Your task to perform on an android device: Open my contact list Image 0: 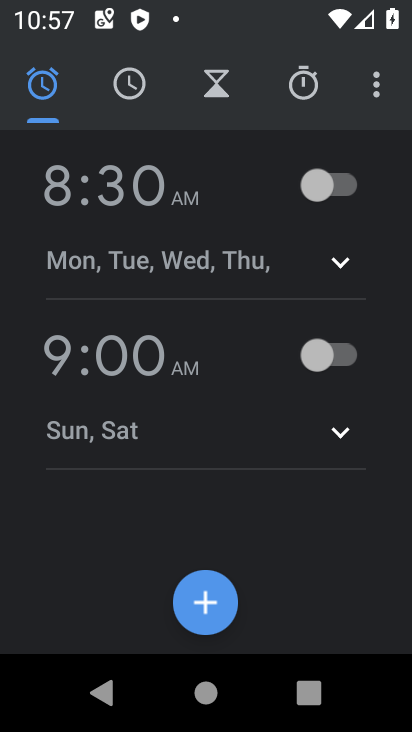
Step 0: press home button
Your task to perform on an android device: Open my contact list Image 1: 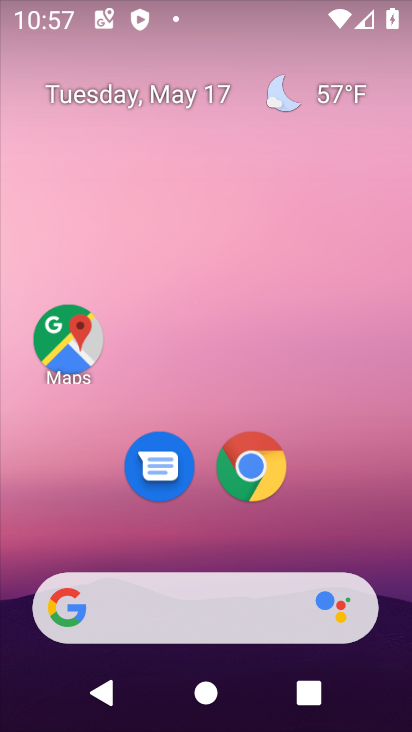
Step 1: drag from (269, 651) to (353, 146)
Your task to perform on an android device: Open my contact list Image 2: 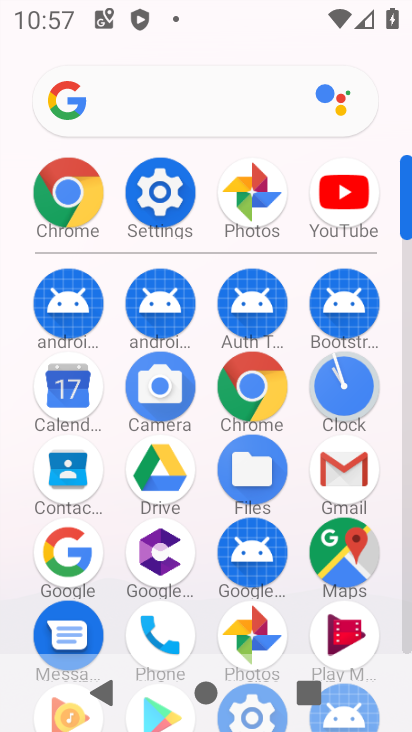
Step 2: click (155, 630)
Your task to perform on an android device: Open my contact list Image 3: 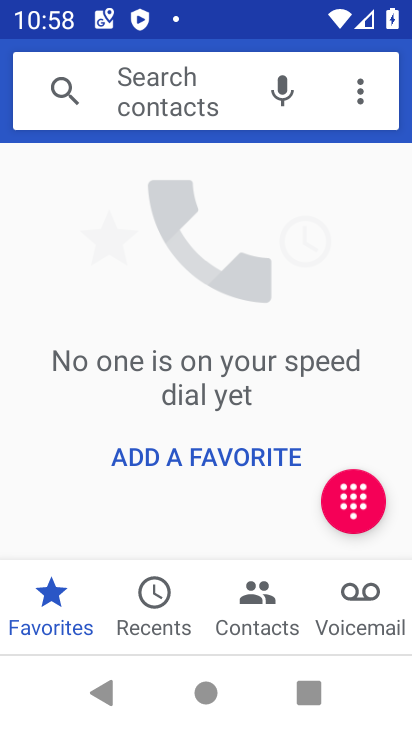
Step 3: click (278, 609)
Your task to perform on an android device: Open my contact list Image 4: 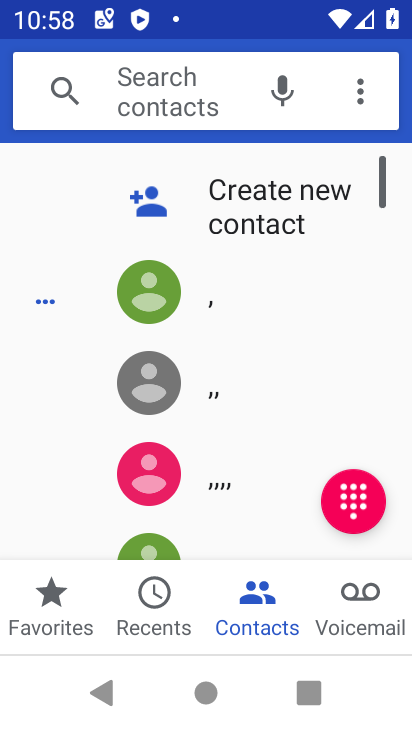
Step 4: task complete